Your task to perform on an android device: Search for Mexican restaurants on Maps Image 0: 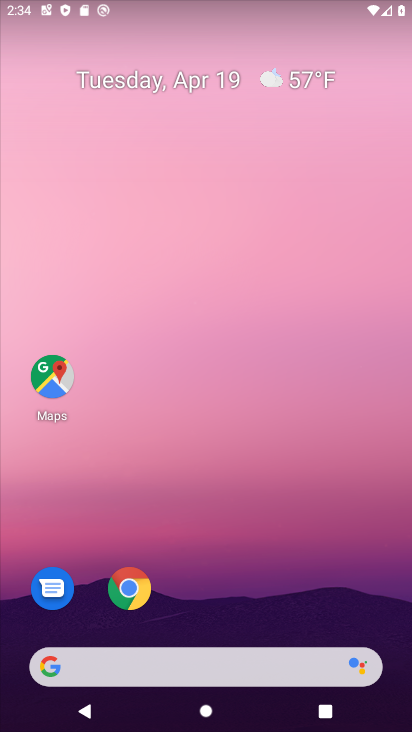
Step 0: click (46, 381)
Your task to perform on an android device: Search for Mexican restaurants on Maps Image 1: 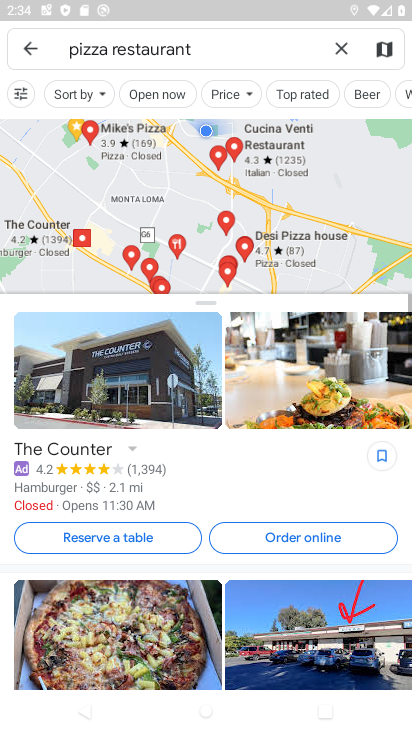
Step 1: click (341, 39)
Your task to perform on an android device: Search for Mexican restaurants on Maps Image 2: 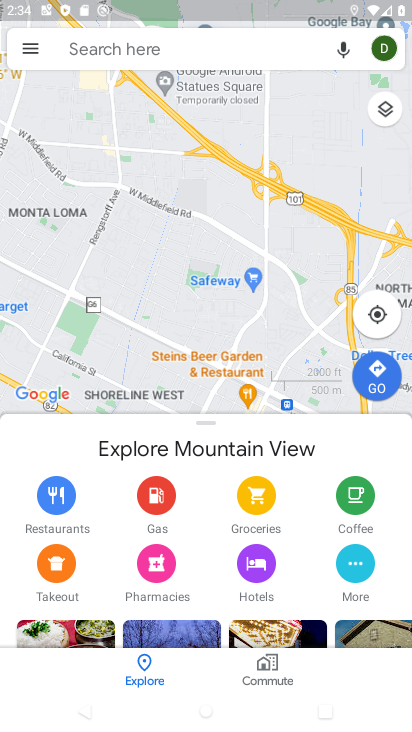
Step 2: click (290, 47)
Your task to perform on an android device: Search for Mexican restaurants on Maps Image 3: 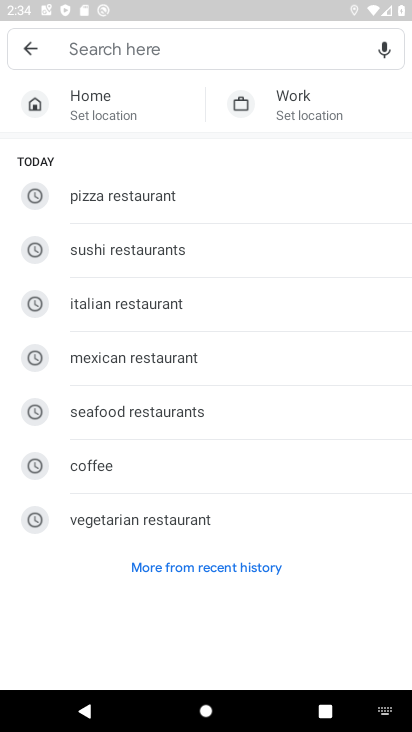
Step 3: click (176, 357)
Your task to perform on an android device: Search for Mexican restaurants on Maps Image 4: 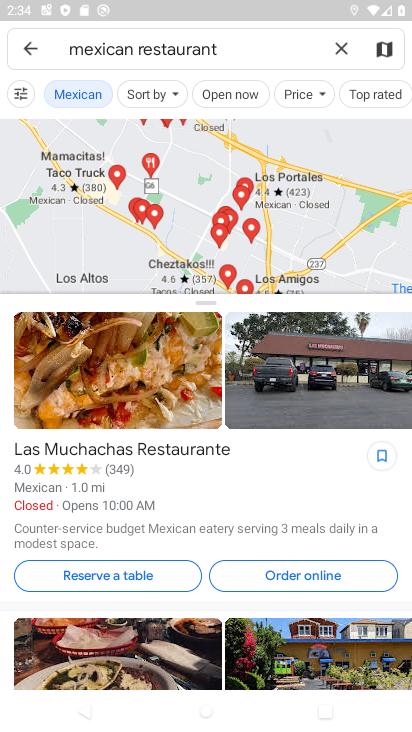
Step 4: task complete